Your task to perform on an android device: open app "McDonald's" Image 0: 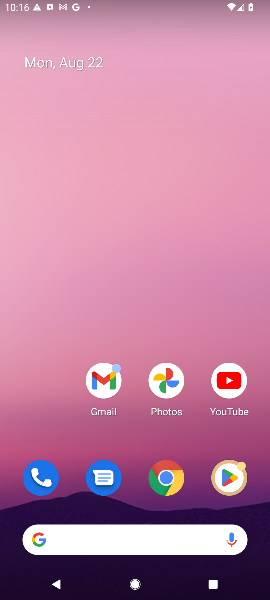
Step 0: drag from (136, 509) to (176, 137)
Your task to perform on an android device: open app "McDonald's" Image 1: 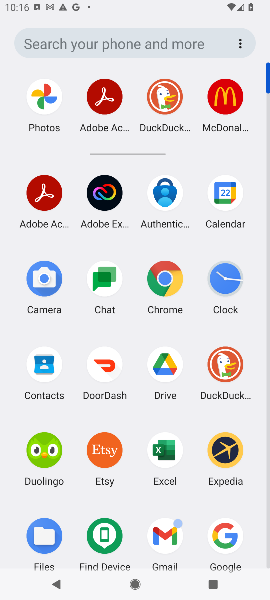
Step 1: task complete